Your task to perform on an android device: toggle improve location accuracy Image 0: 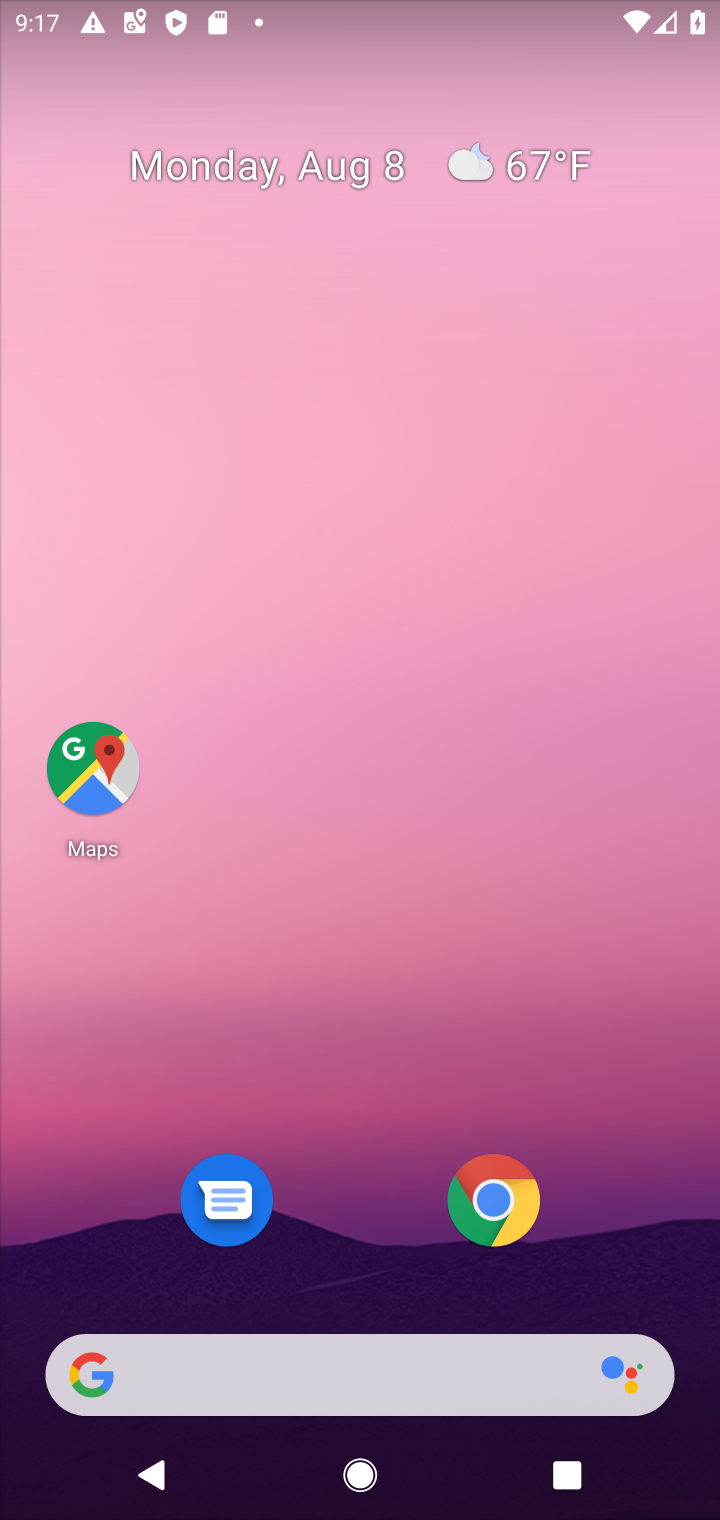
Step 0: press home button
Your task to perform on an android device: toggle improve location accuracy Image 1: 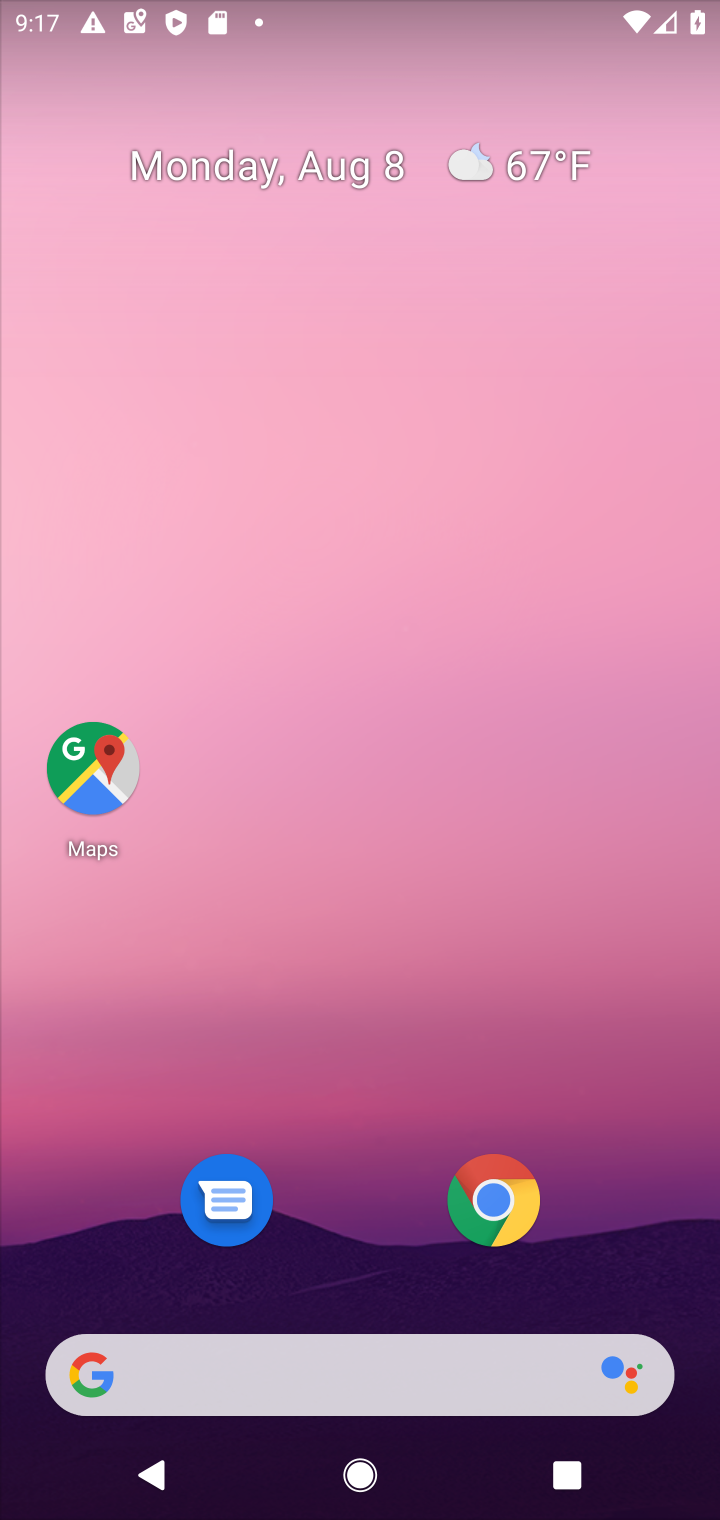
Step 1: drag from (278, 1367) to (560, 52)
Your task to perform on an android device: toggle improve location accuracy Image 2: 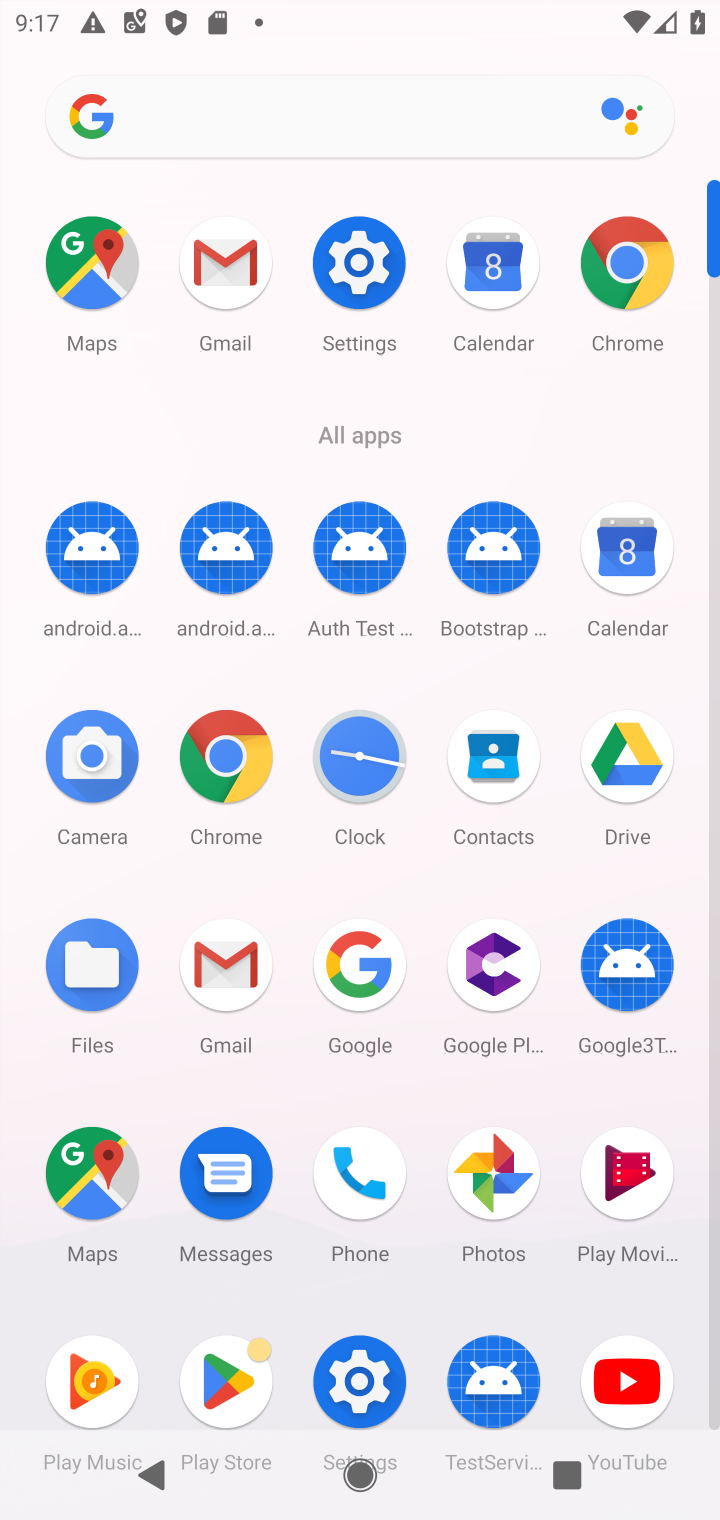
Step 2: click (340, 280)
Your task to perform on an android device: toggle improve location accuracy Image 3: 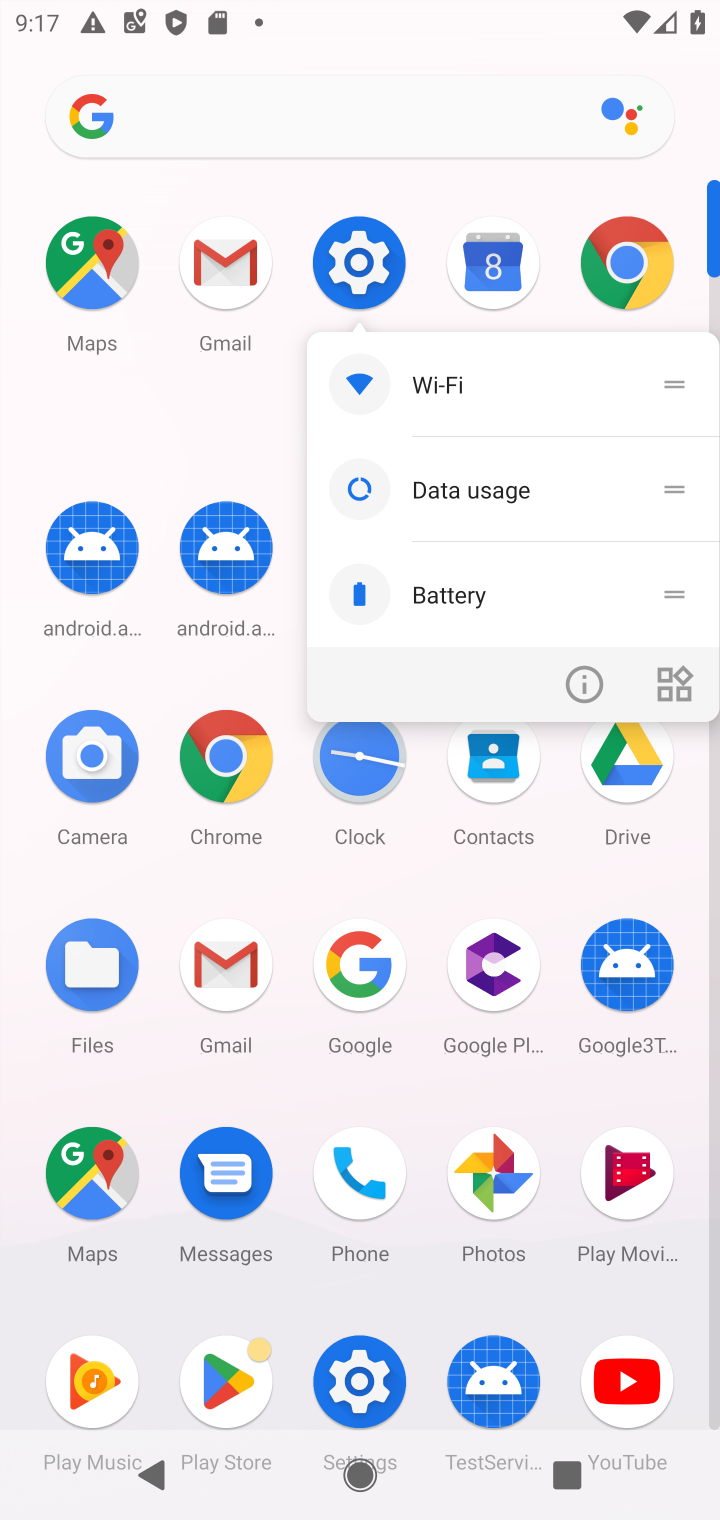
Step 3: click (372, 246)
Your task to perform on an android device: toggle improve location accuracy Image 4: 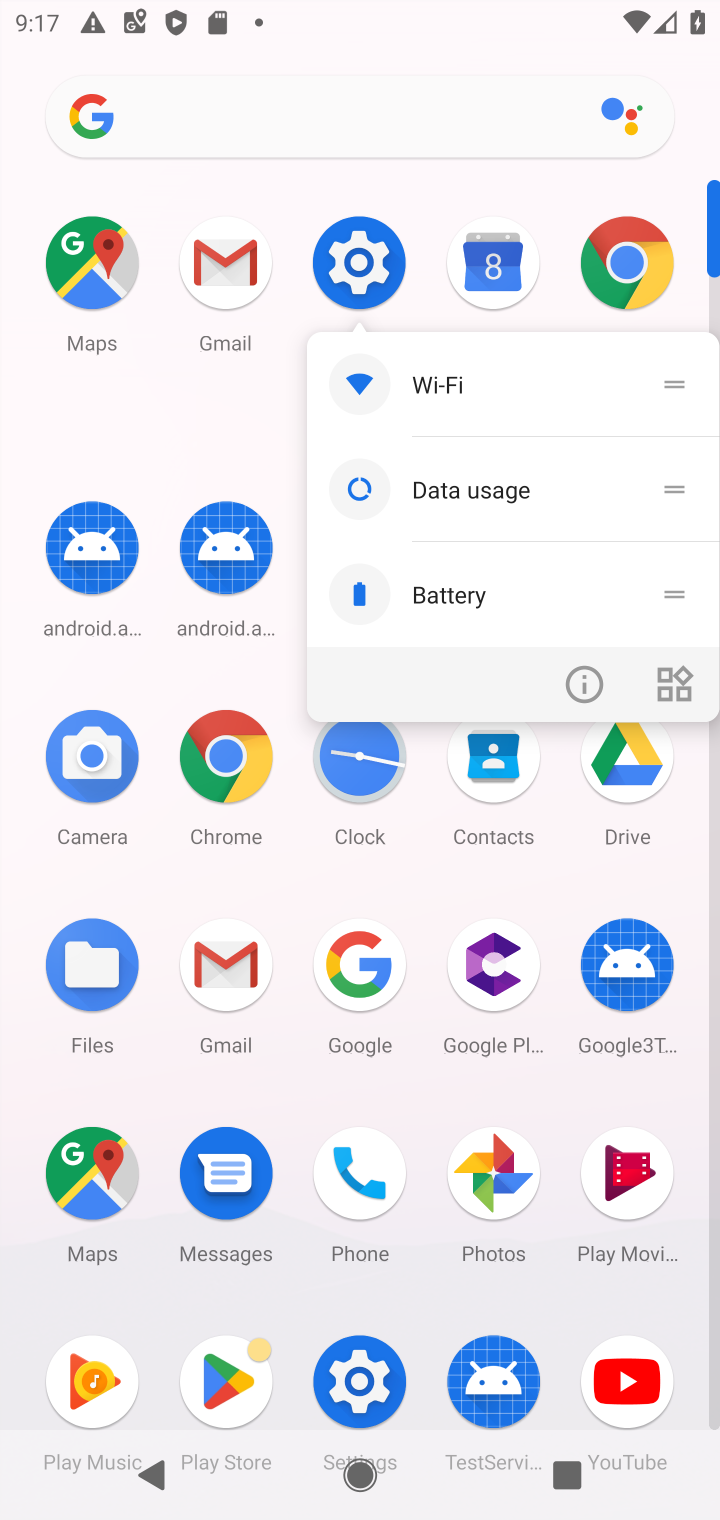
Step 4: click (372, 251)
Your task to perform on an android device: toggle improve location accuracy Image 5: 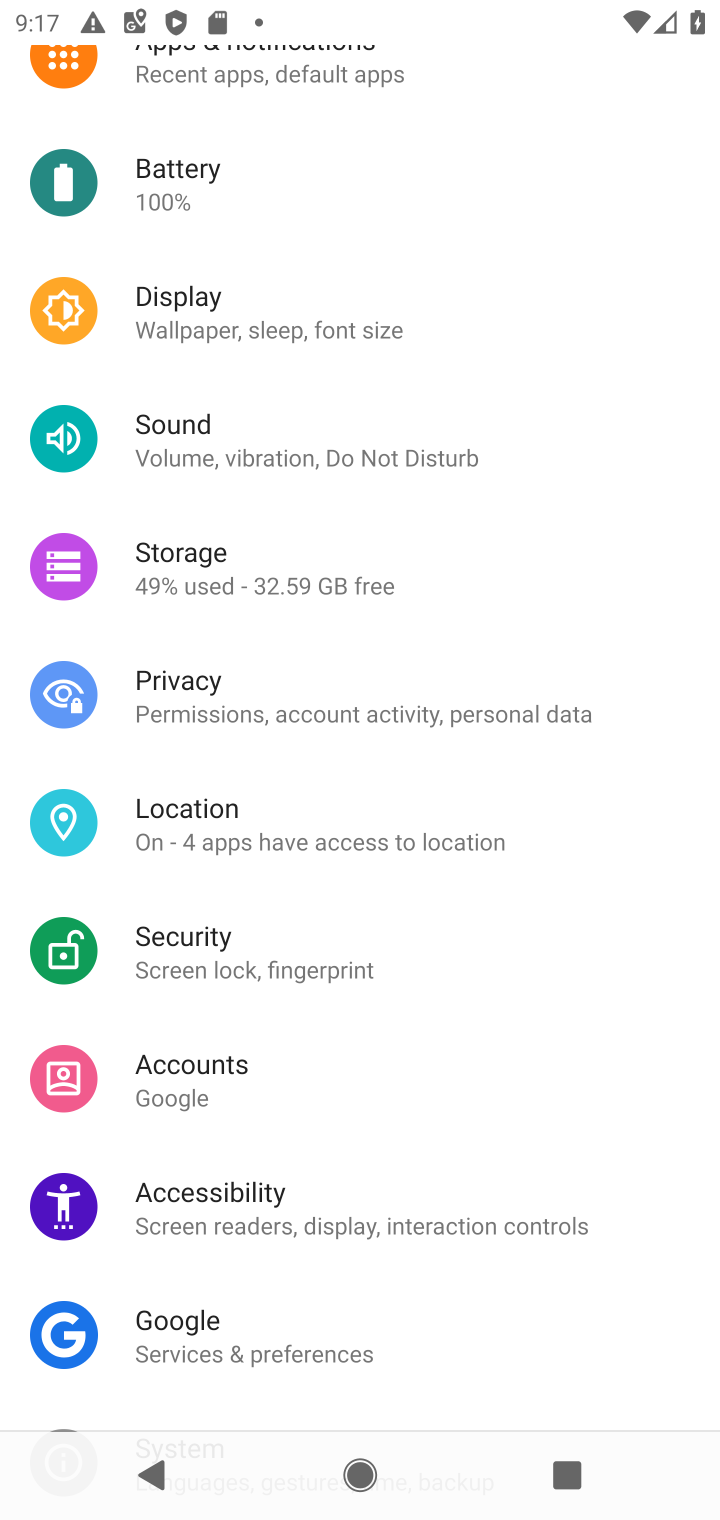
Step 5: drag from (482, 226) to (603, 1246)
Your task to perform on an android device: toggle improve location accuracy Image 6: 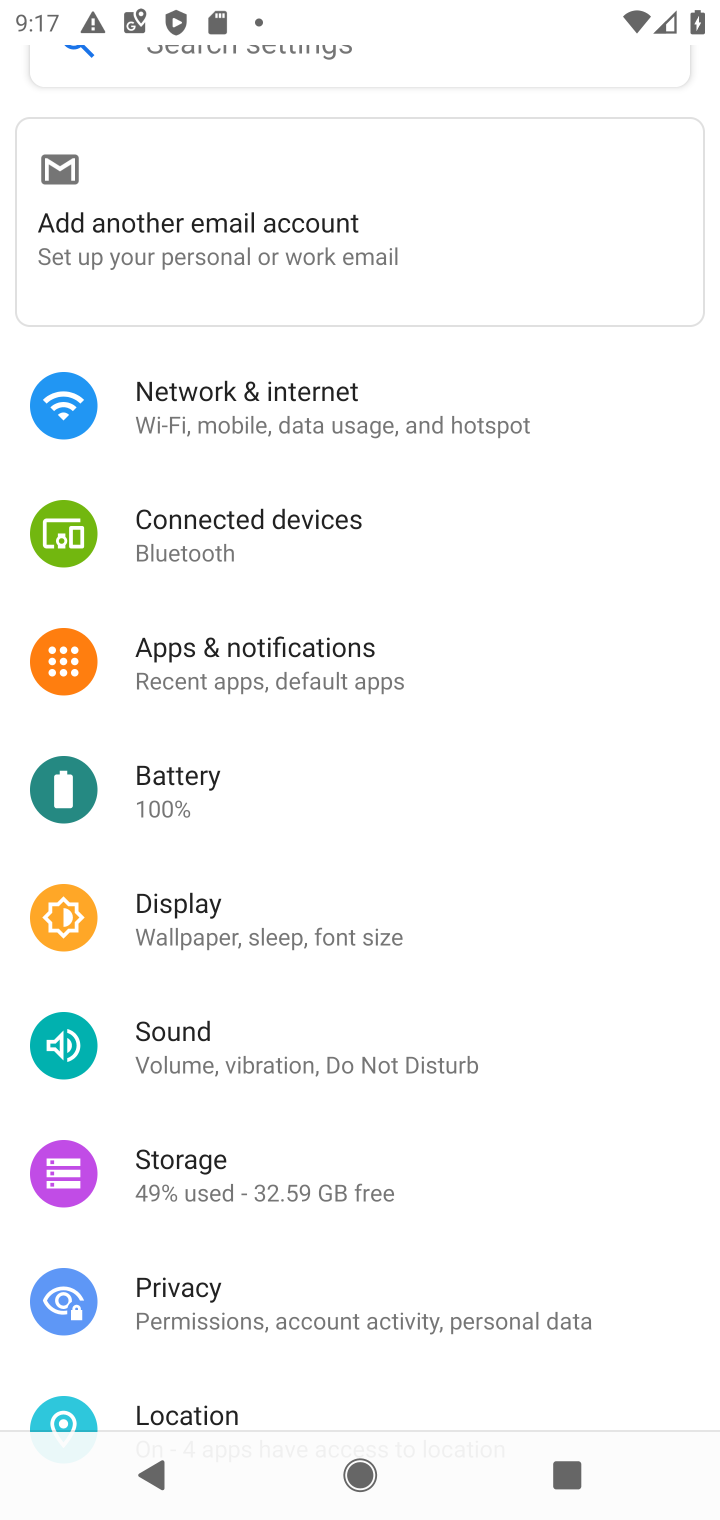
Step 6: drag from (451, 1222) to (565, 61)
Your task to perform on an android device: toggle improve location accuracy Image 7: 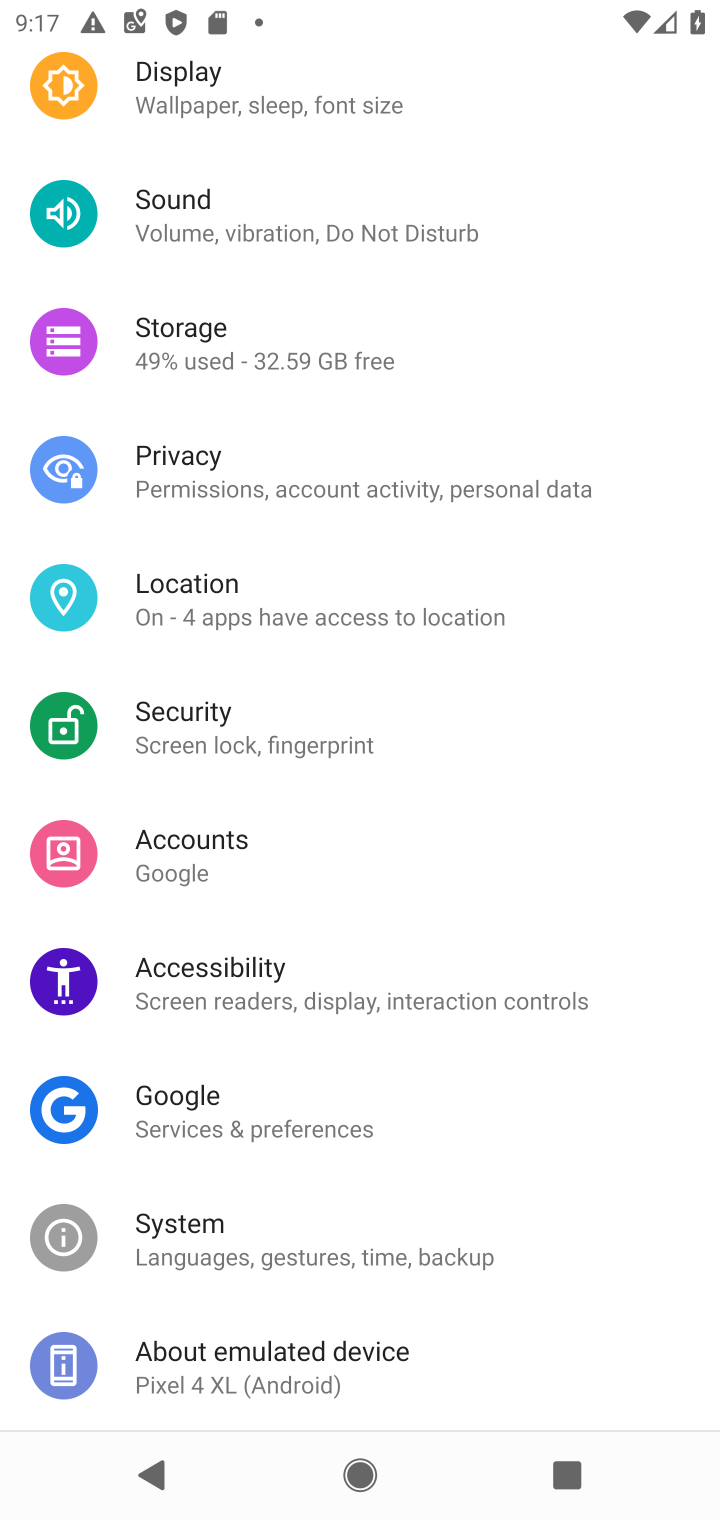
Step 7: click (194, 596)
Your task to perform on an android device: toggle improve location accuracy Image 8: 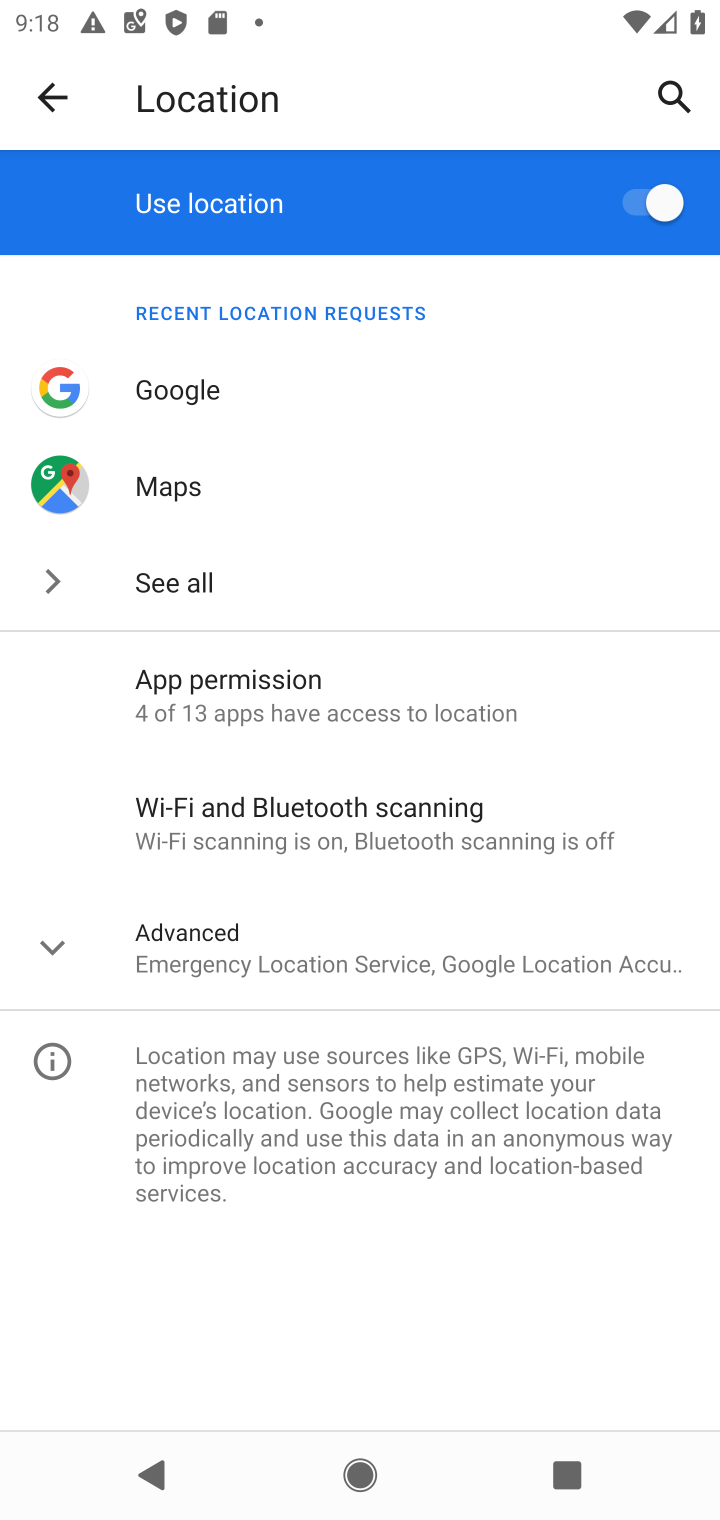
Step 8: click (220, 939)
Your task to perform on an android device: toggle improve location accuracy Image 9: 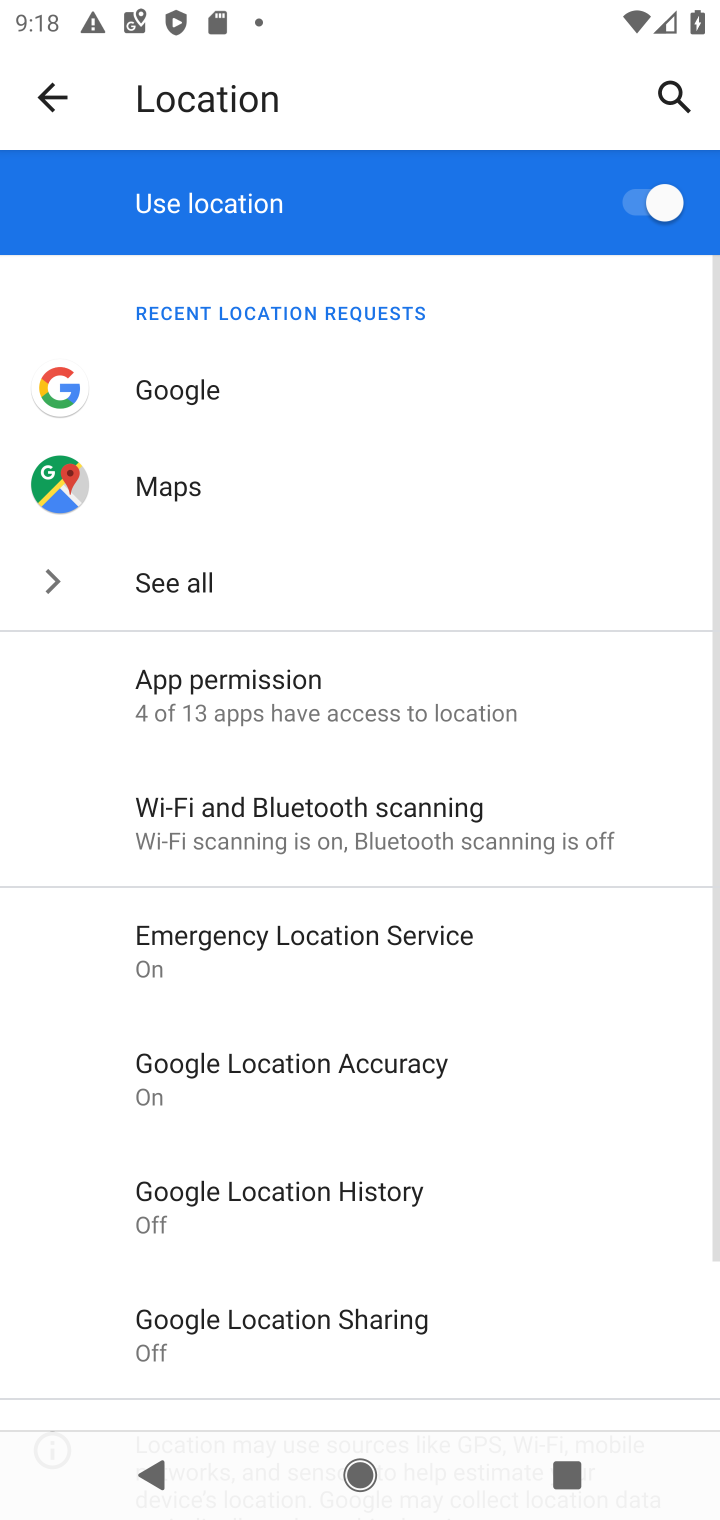
Step 9: click (269, 1066)
Your task to perform on an android device: toggle improve location accuracy Image 10: 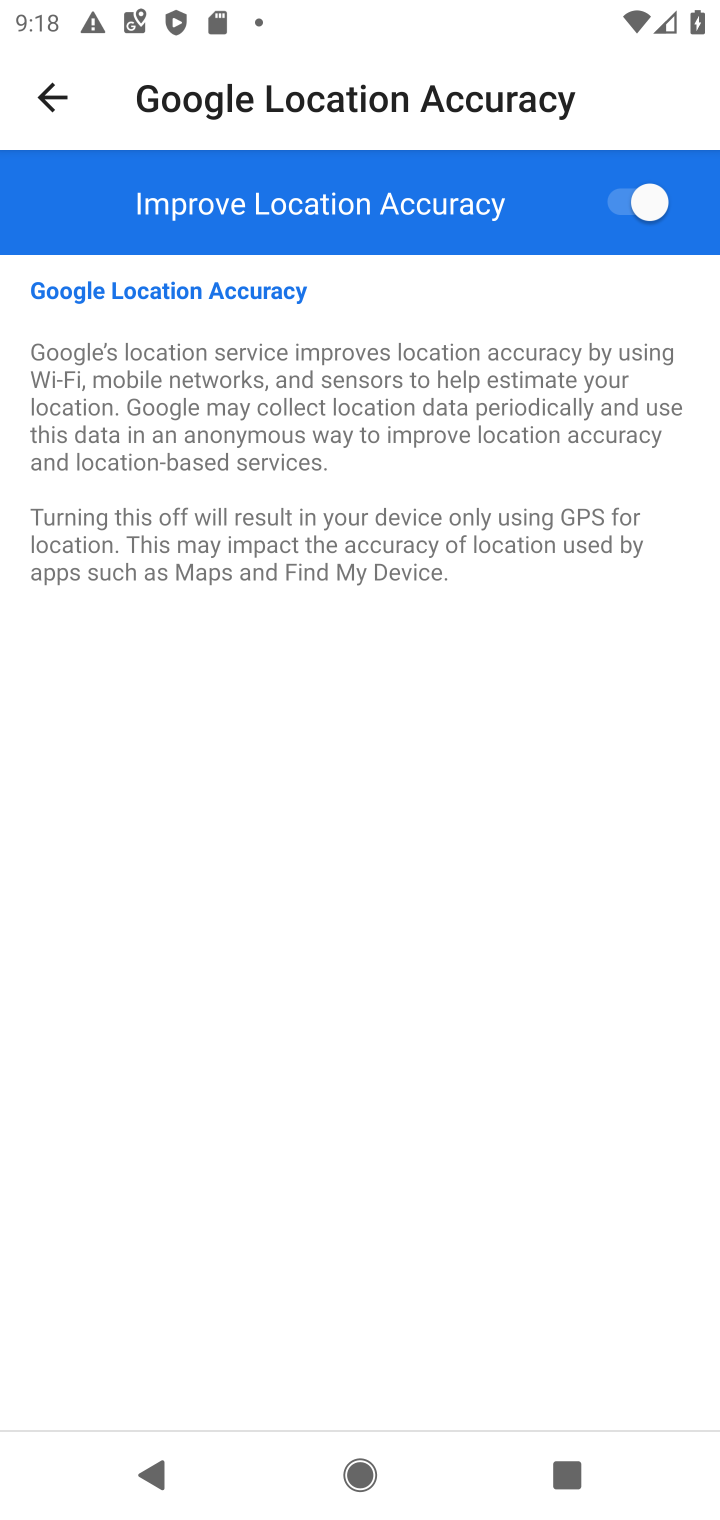
Step 10: click (624, 208)
Your task to perform on an android device: toggle improve location accuracy Image 11: 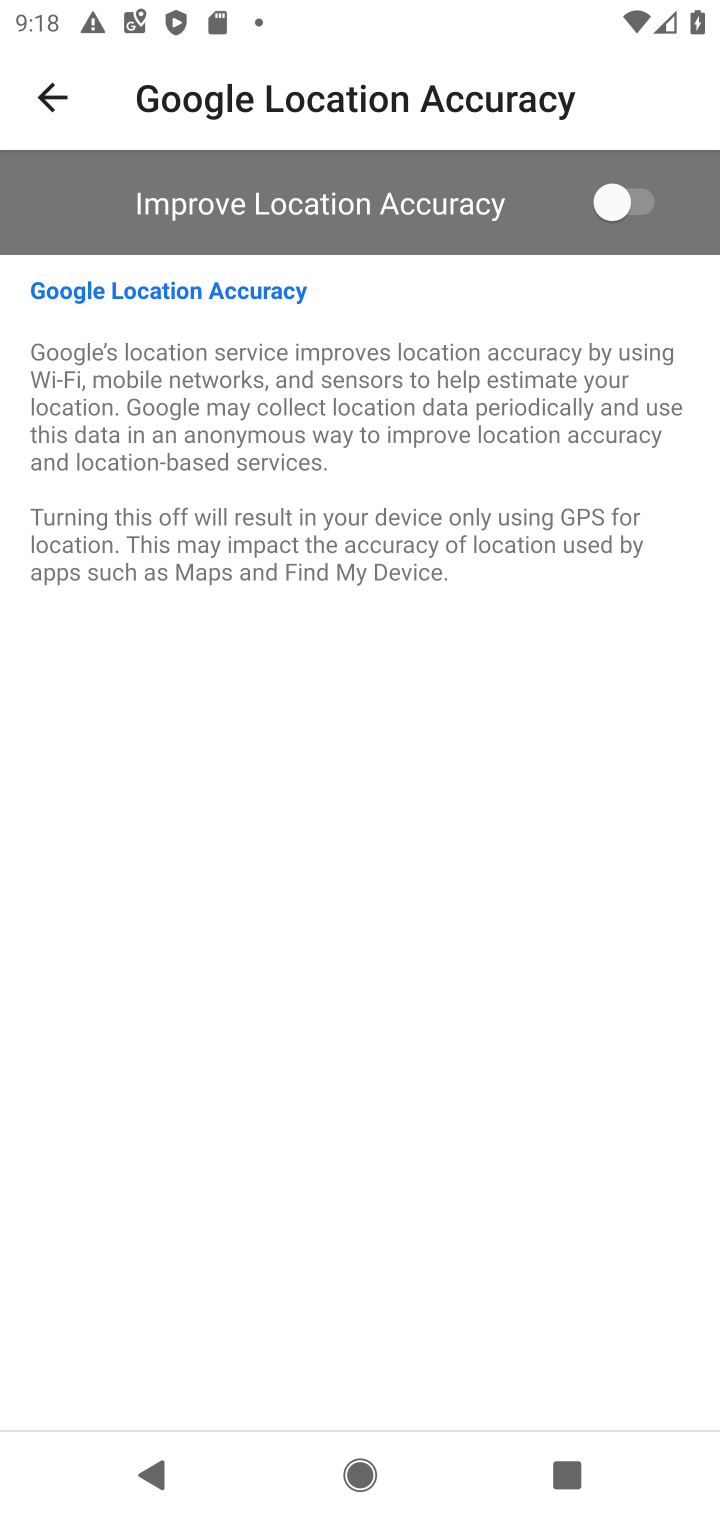
Step 11: task complete